Your task to perform on an android device: Open Maps and search for coffee Image 0: 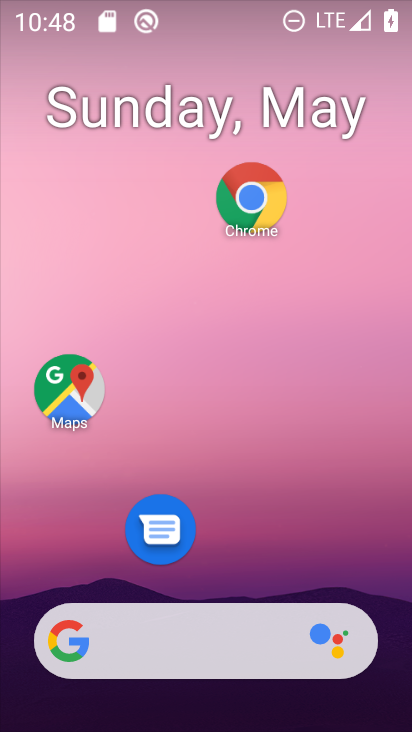
Step 0: drag from (341, 573) to (394, 52)
Your task to perform on an android device: Open Maps and search for coffee Image 1: 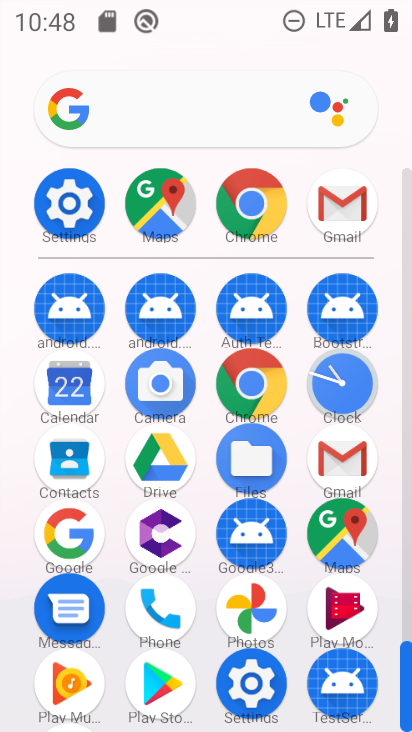
Step 1: click (338, 533)
Your task to perform on an android device: Open Maps and search for coffee Image 2: 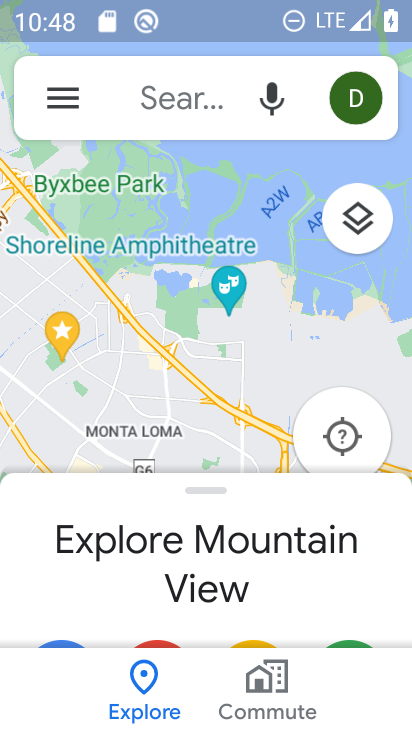
Step 2: click (163, 113)
Your task to perform on an android device: Open Maps and search for coffee Image 3: 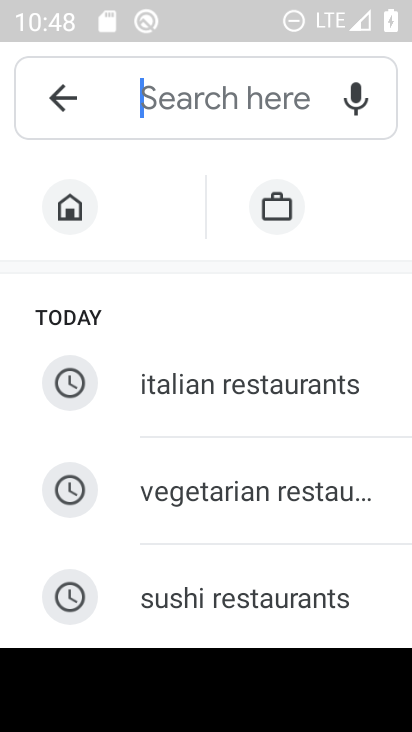
Step 3: type "coffee"
Your task to perform on an android device: Open Maps and search for coffee Image 4: 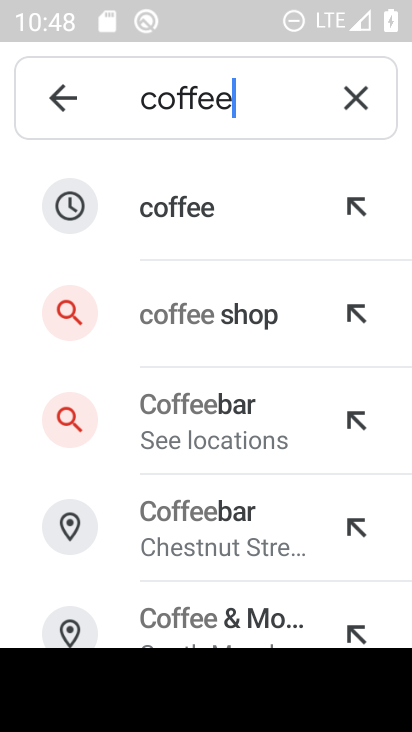
Step 4: click (169, 209)
Your task to perform on an android device: Open Maps and search for coffee Image 5: 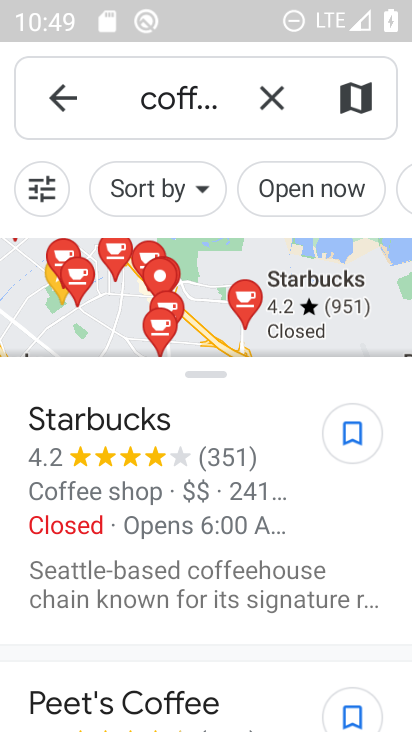
Step 5: task complete